Your task to perform on an android device: Open Yahoo.com Image 0: 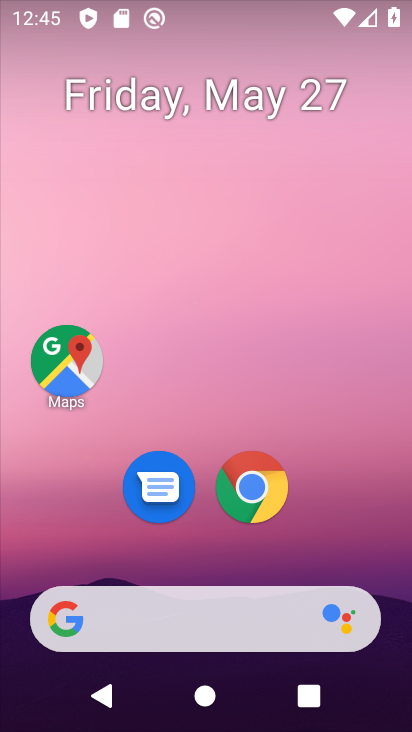
Step 0: click (238, 497)
Your task to perform on an android device: Open Yahoo.com Image 1: 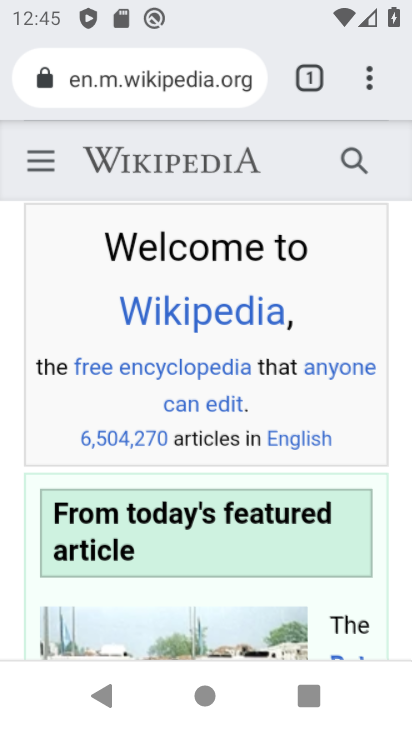
Step 1: click (311, 85)
Your task to perform on an android device: Open Yahoo.com Image 2: 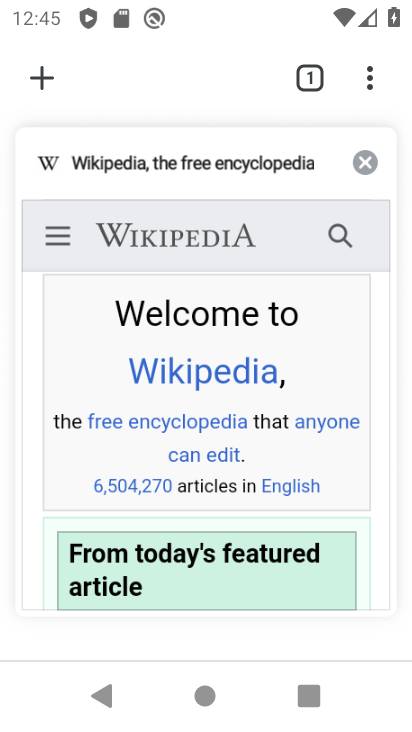
Step 2: click (362, 167)
Your task to perform on an android device: Open Yahoo.com Image 3: 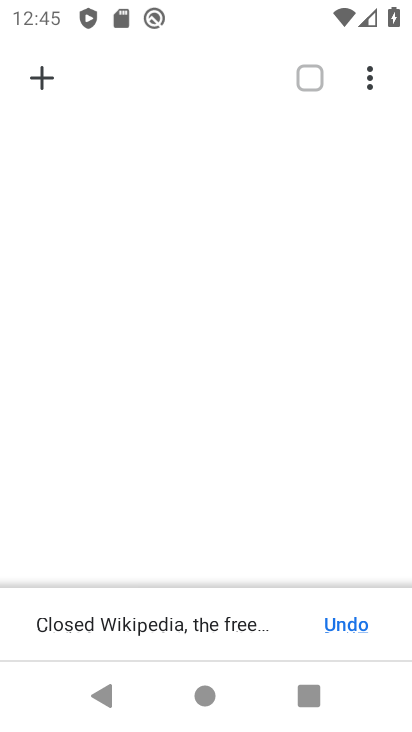
Step 3: click (40, 78)
Your task to perform on an android device: Open Yahoo.com Image 4: 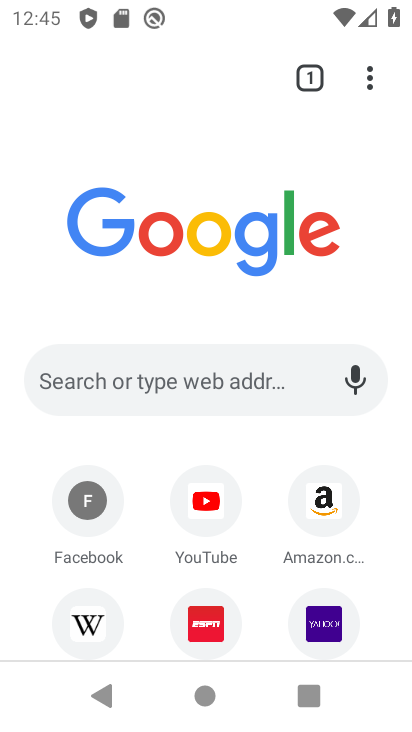
Step 4: click (325, 631)
Your task to perform on an android device: Open Yahoo.com Image 5: 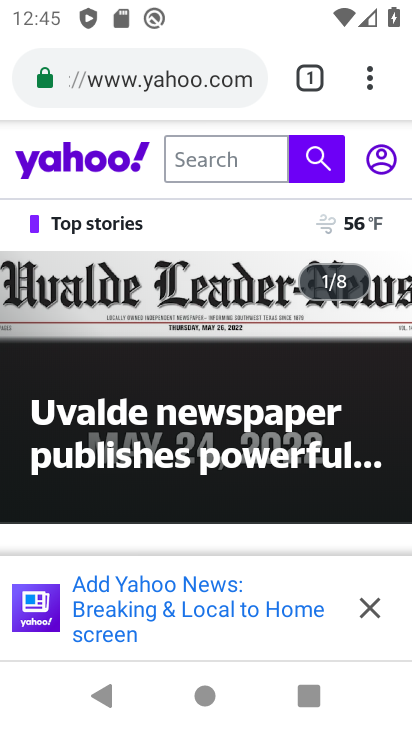
Step 5: task complete